Your task to perform on an android device: Search for Italian restaurants on Maps Image 0: 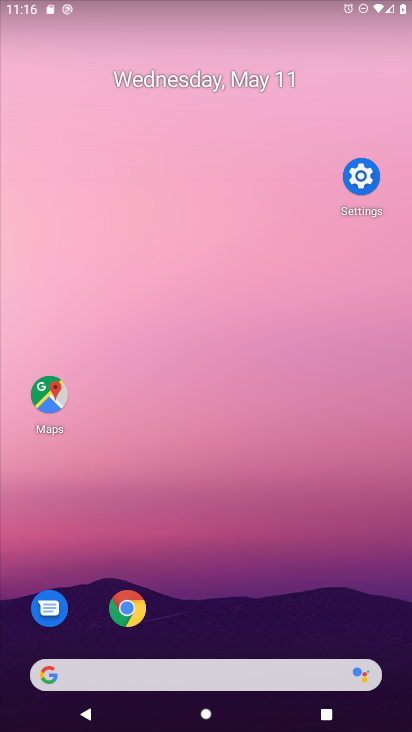
Step 0: drag from (324, 619) to (1, 274)
Your task to perform on an android device: Search for Italian restaurants on Maps Image 1: 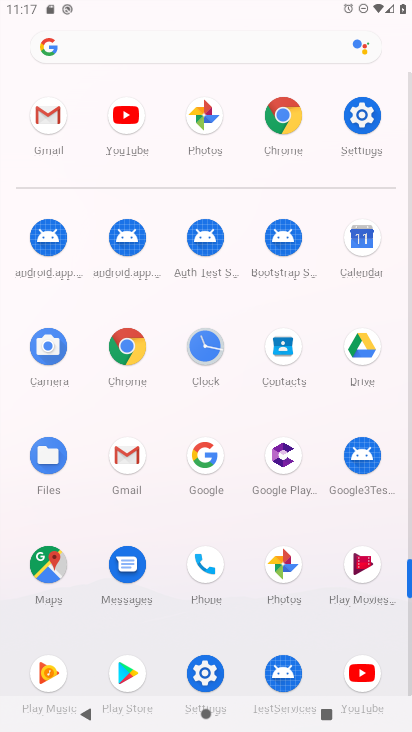
Step 1: click (49, 555)
Your task to perform on an android device: Search for Italian restaurants on Maps Image 2: 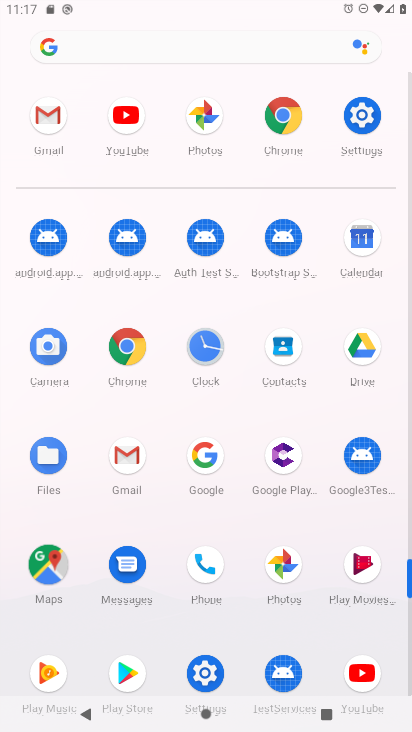
Step 2: click (44, 545)
Your task to perform on an android device: Search for Italian restaurants on Maps Image 3: 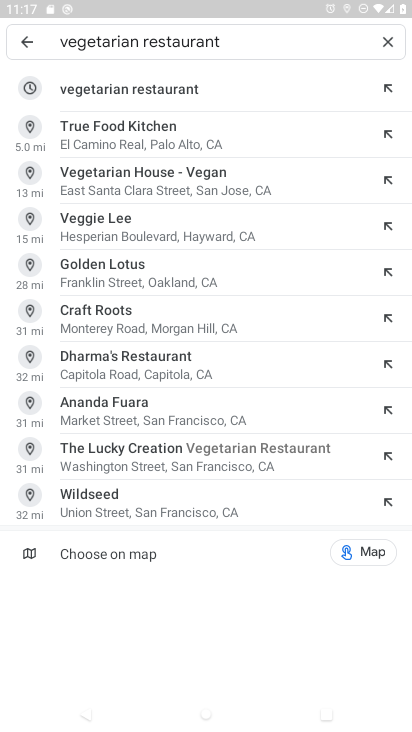
Step 3: click (186, 87)
Your task to perform on an android device: Search for Italian restaurants on Maps Image 4: 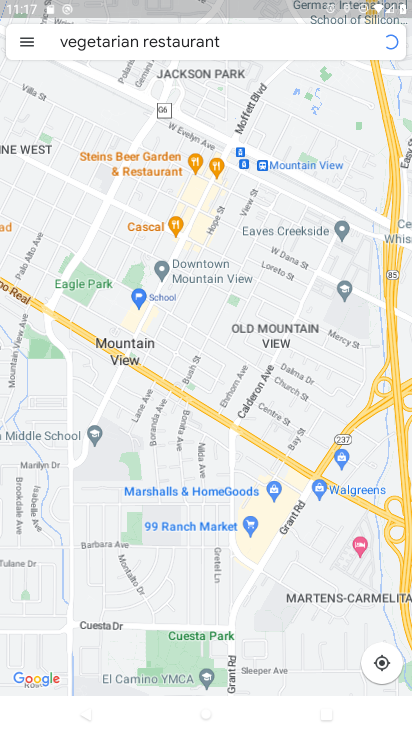
Step 4: click (131, 43)
Your task to perform on an android device: Search for Italian restaurants on Maps Image 5: 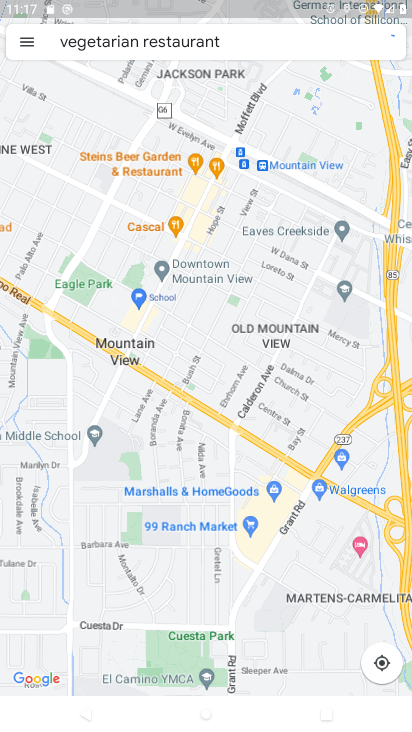
Step 5: click (138, 39)
Your task to perform on an android device: Search for Italian restaurants on Maps Image 6: 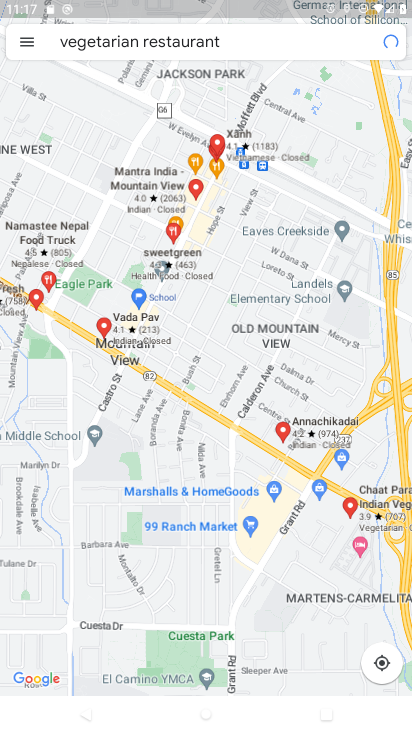
Step 6: click (219, 41)
Your task to perform on an android device: Search for Italian restaurants on Maps Image 7: 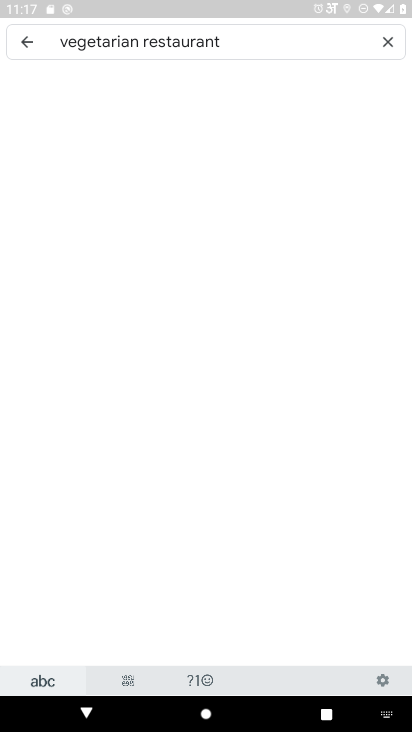
Step 7: click (236, 46)
Your task to perform on an android device: Search for Italian restaurants on Maps Image 8: 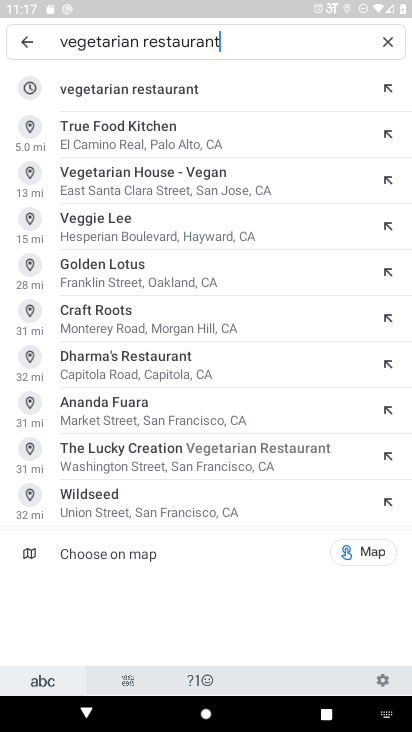
Step 8: click (137, 36)
Your task to perform on an android device: Search for Italian restaurants on Maps Image 9: 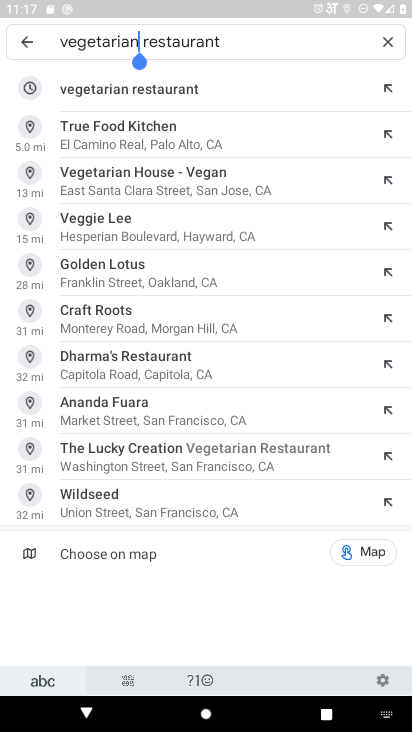
Step 9: click (137, 36)
Your task to perform on an android device: Search for Italian restaurants on Maps Image 10: 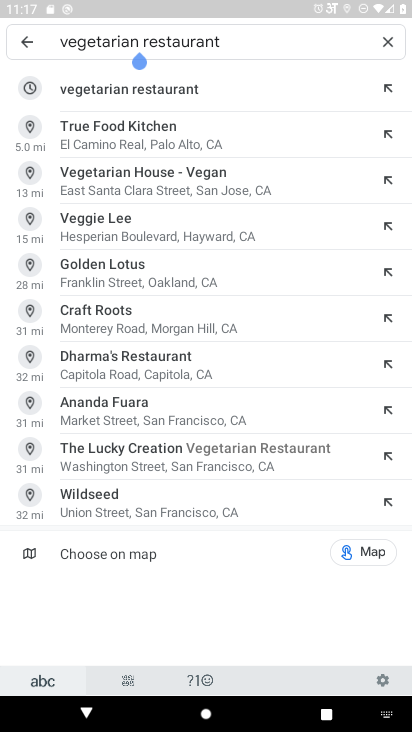
Step 10: click (137, 36)
Your task to perform on an android device: Search for Italian restaurants on Maps Image 11: 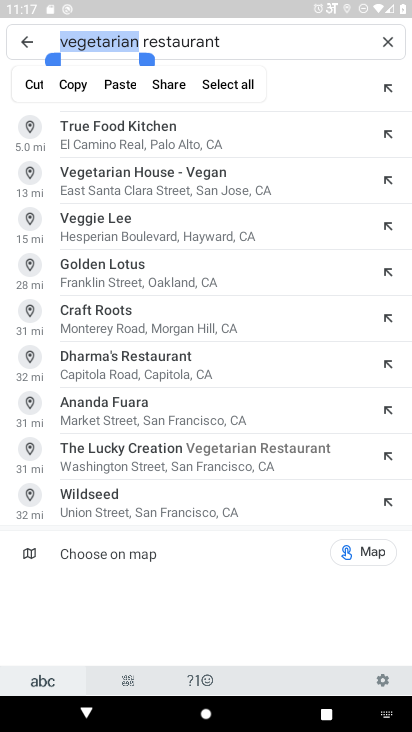
Step 11: click (137, 36)
Your task to perform on an android device: Search for Italian restaurants on Maps Image 12: 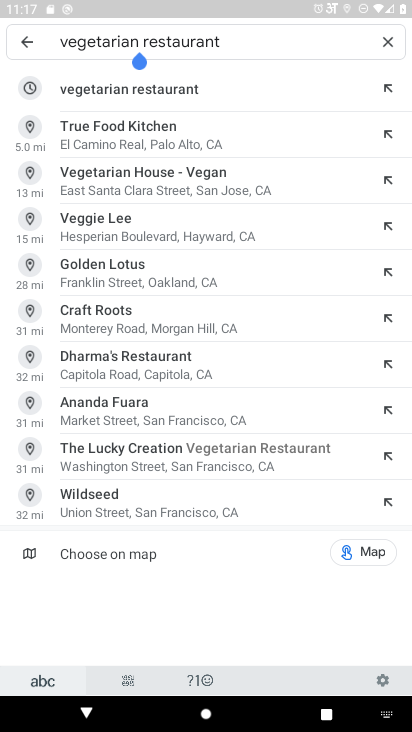
Step 12: click (137, 45)
Your task to perform on an android device: Search for Italian restaurants on Maps Image 13: 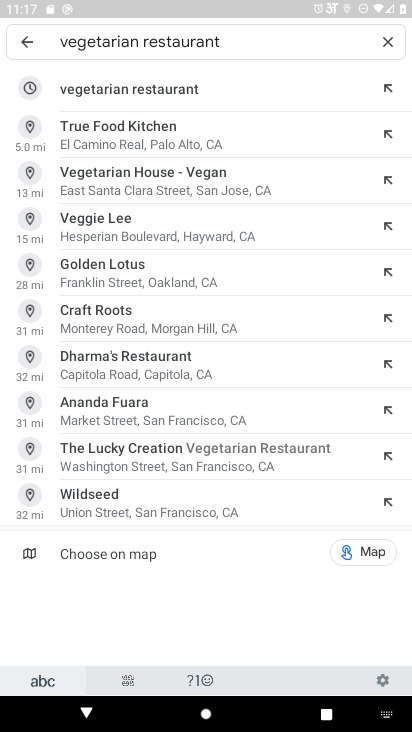
Step 13: type "italian restaurants"
Your task to perform on an android device: Search for Italian restaurants on Maps Image 14: 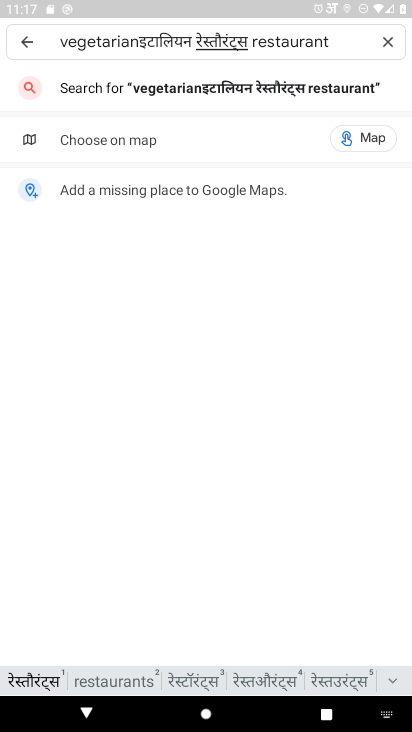
Step 14: click (227, 92)
Your task to perform on an android device: Search for Italian restaurants on Maps Image 15: 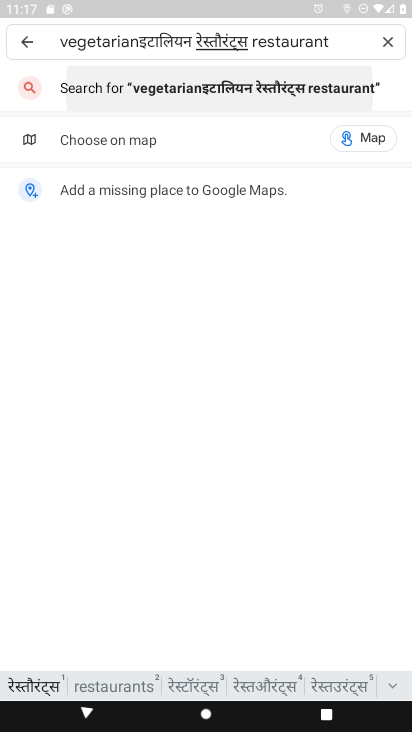
Step 15: click (228, 91)
Your task to perform on an android device: Search for Italian restaurants on Maps Image 16: 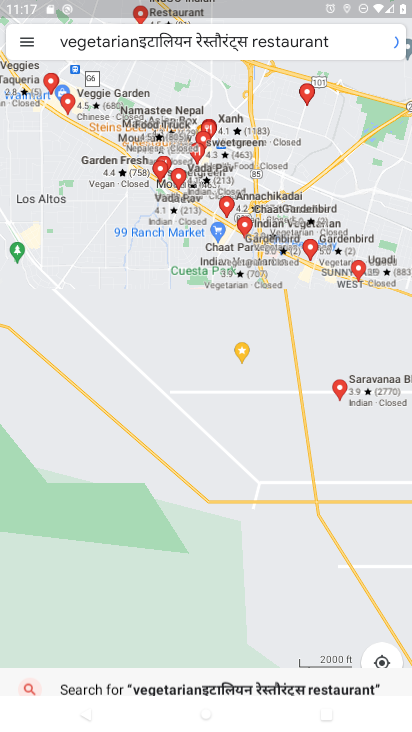
Step 16: click (229, 92)
Your task to perform on an android device: Search for Italian restaurants on Maps Image 17: 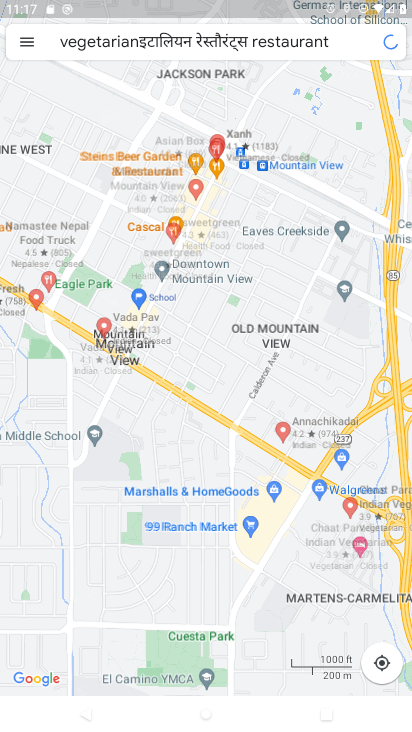
Step 17: click (229, 92)
Your task to perform on an android device: Search for Italian restaurants on Maps Image 18: 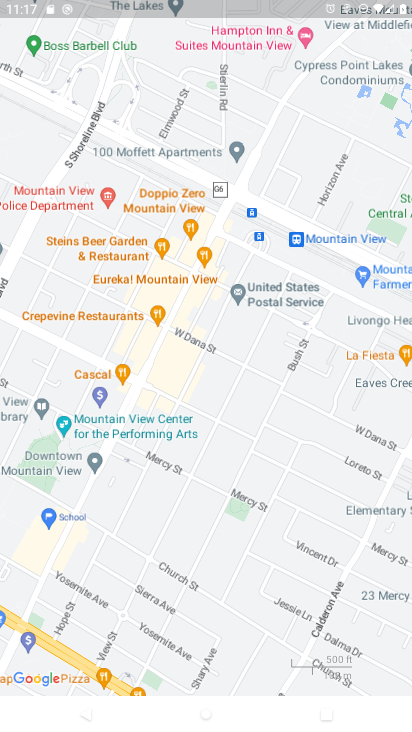
Step 18: task complete